Your task to perform on an android device: Open wifi settings Image 0: 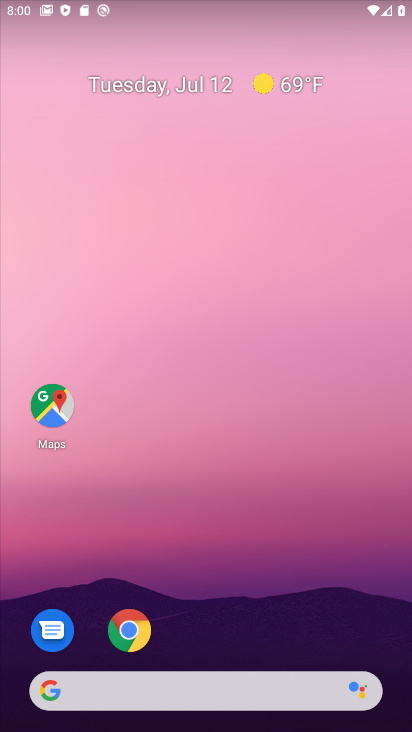
Step 0: drag from (356, 594) to (404, 11)
Your task to perform on an android device: Open wifi settings Image 1: 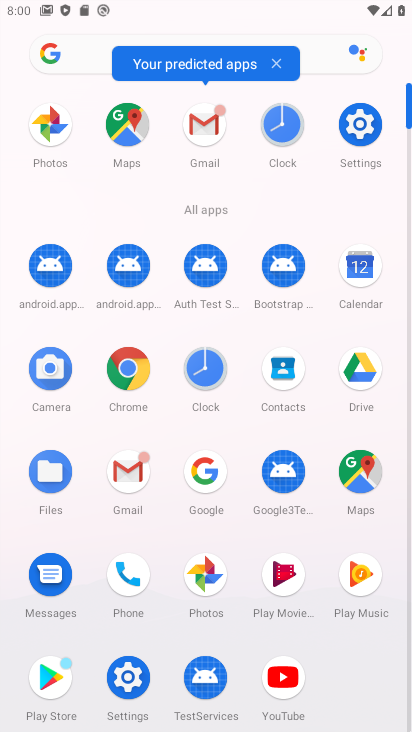
Step 1: click (371, 130)
Your task to perform on an android device: Open wifi settings Image 2: 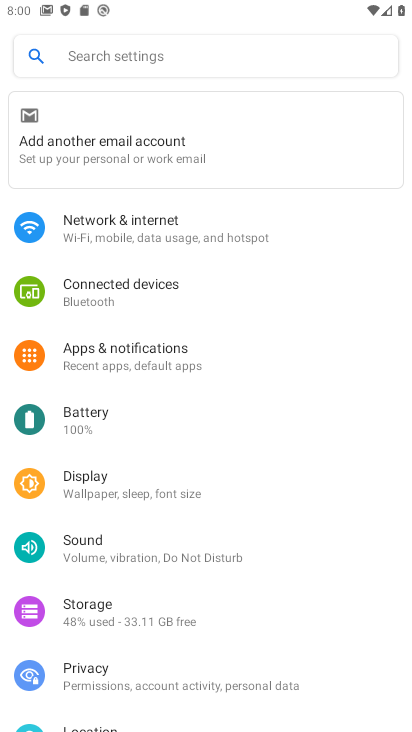
Step 2: click (75, 222)
Your task to perform on an android device: Open wifi settings Image 3: 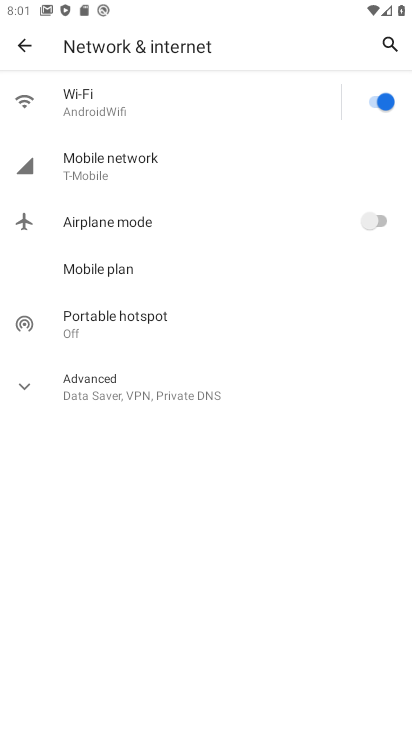
Step 3: click (68, 95)
Your task to perform on an android device: Open wifi settings Image 4: 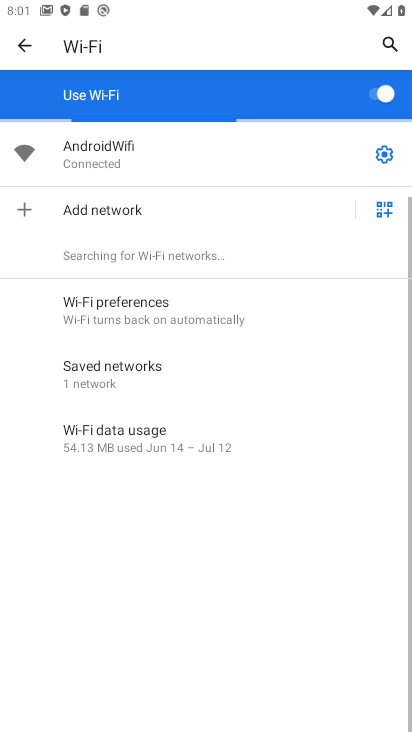
Step 4: task complete